Your task to perform on an android device: set the stopwatch Image 0: 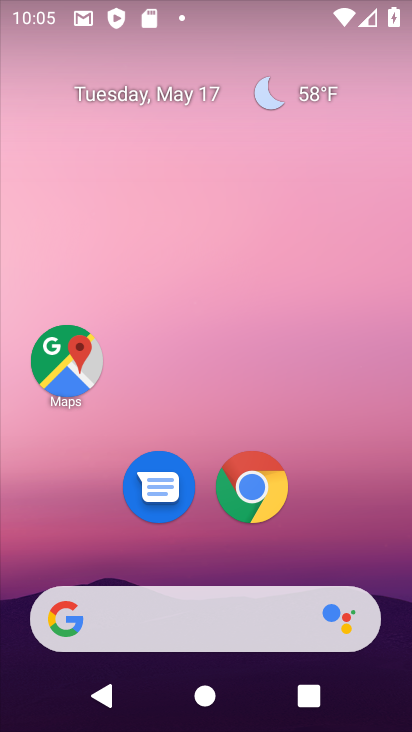
Step 0: drag from (218, 723) to (227, 138)
Your task to perform on an android device: set the stopwatch Image 1: 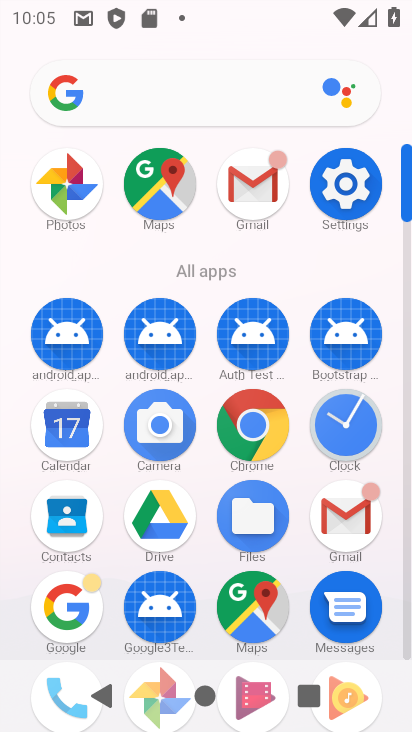
Step 1: click (340, 424)
Your task to perform on an android device: set the stopwatch Image 2: 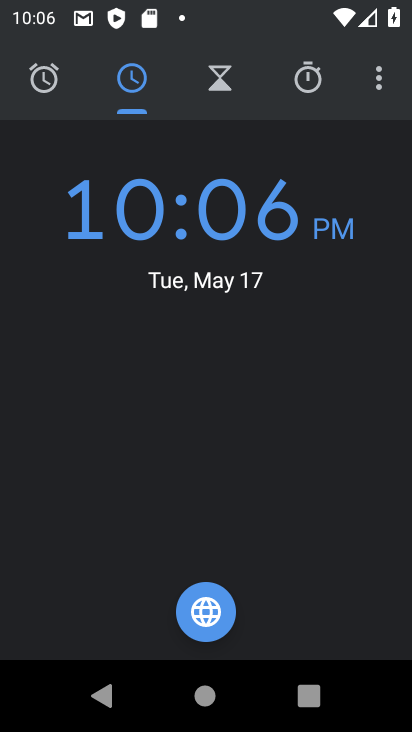
Step 2: click (308, 75)
Your task to perform on an android device: set the stopwatch Image 3: 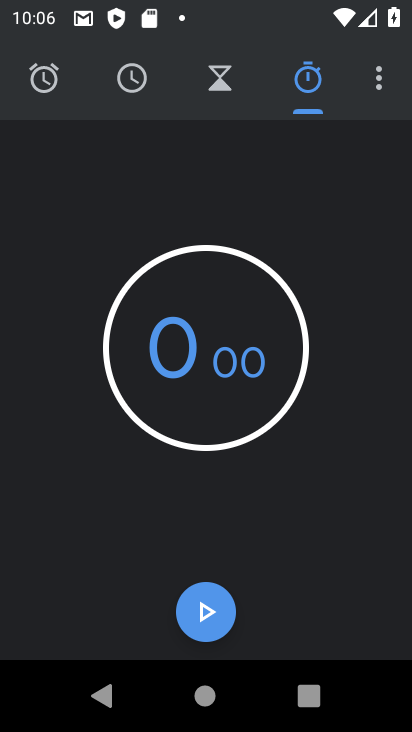
Step 3: click (217, 370)
Your task to perform on an android device: set the stopwatch Image 4: 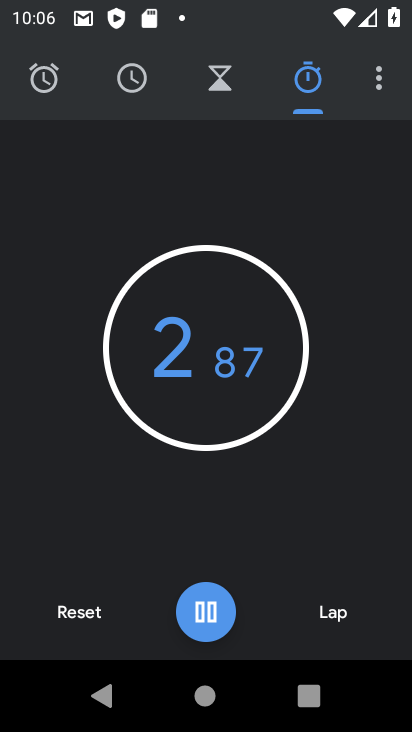
Step 4: type "788"
Your task to perform on an android device: set the stopwatch Image 5: 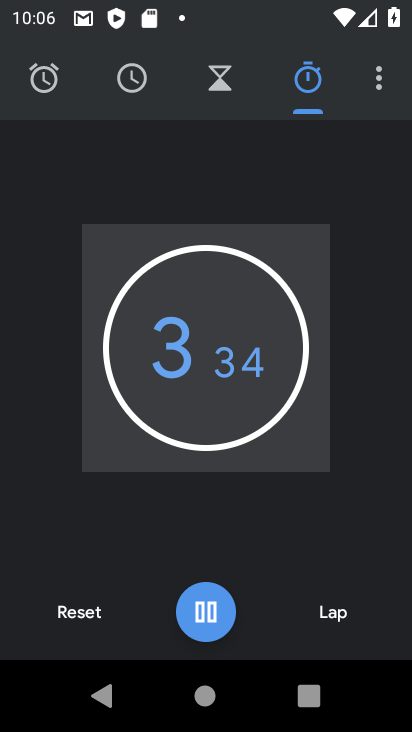
Step 5: type ""
Your task to perform on an android device: set the stopwatch Image 6: 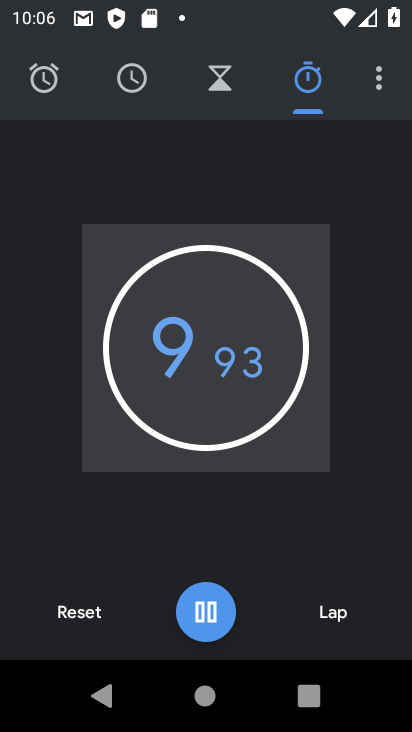
Step 6: task complete